Your task to perform on an android device: Clear the shopping cart on walmart.com. Image 0: 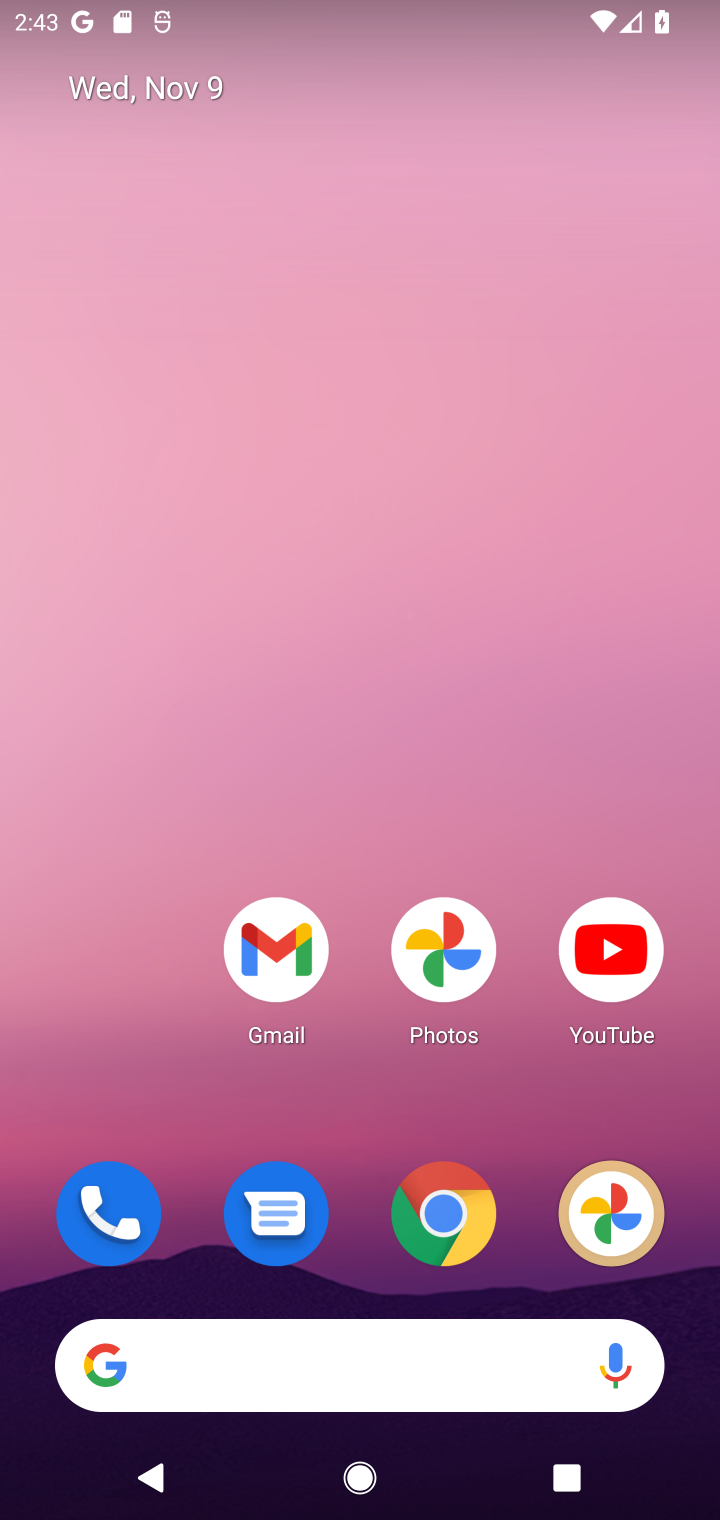
Step 0: click (445, 1214)
Your task to perform on an android device: Clear the shopping cart on walmart.com. Image 1: 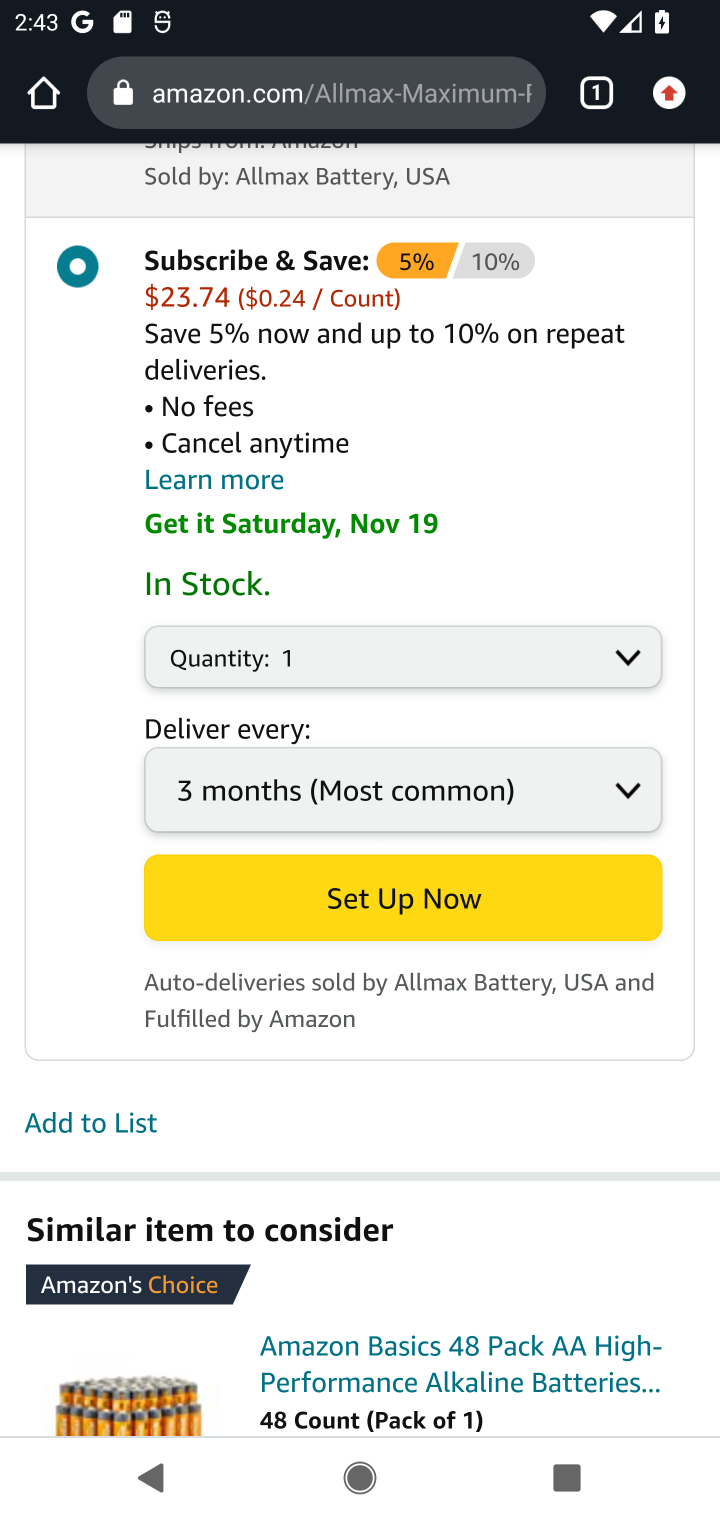
Step 1: press home button
Your task to perform on an android device: Clear the shopping cart on walmart.com. Image 2: 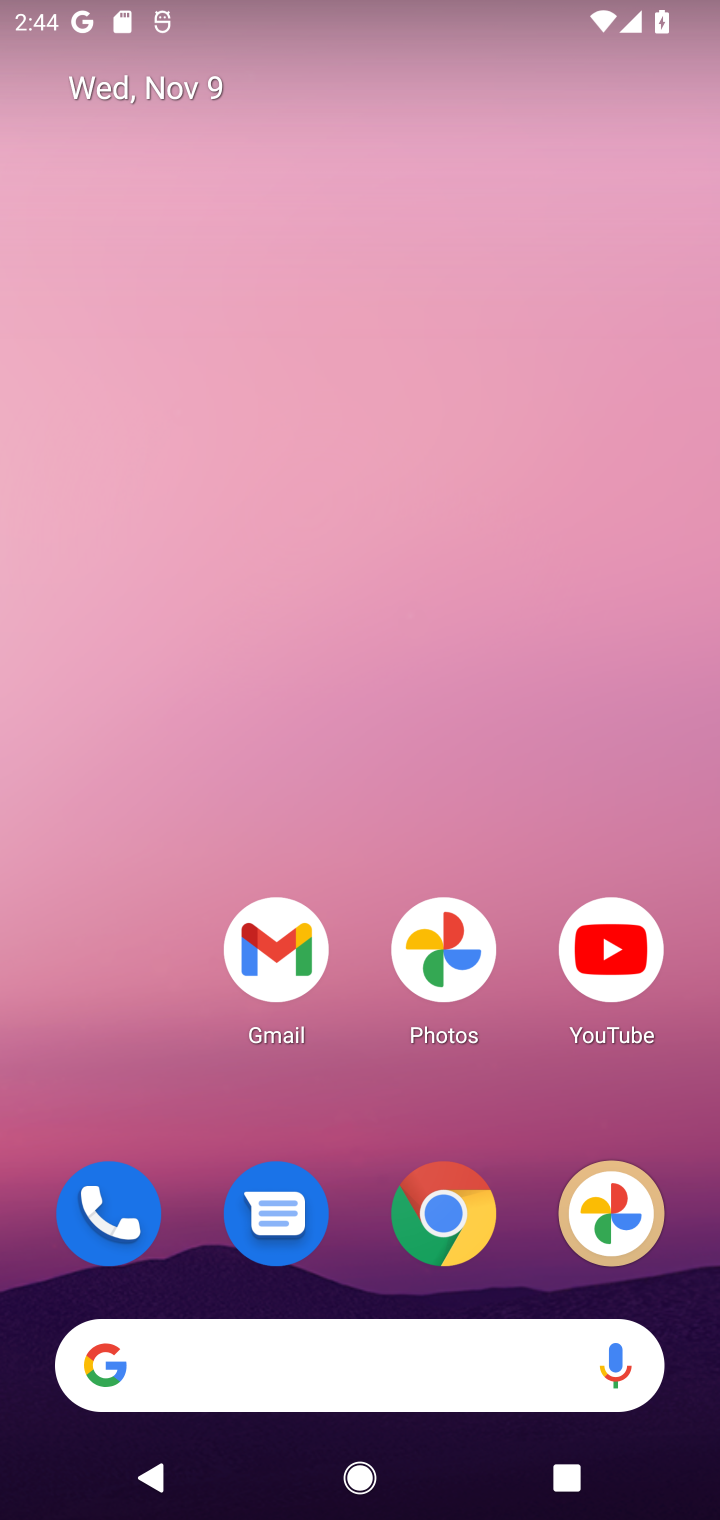
Step 2: click (443, 1212)
Your task to perform on an android device: Clear the shopping cart on walmart.com. Image 3: 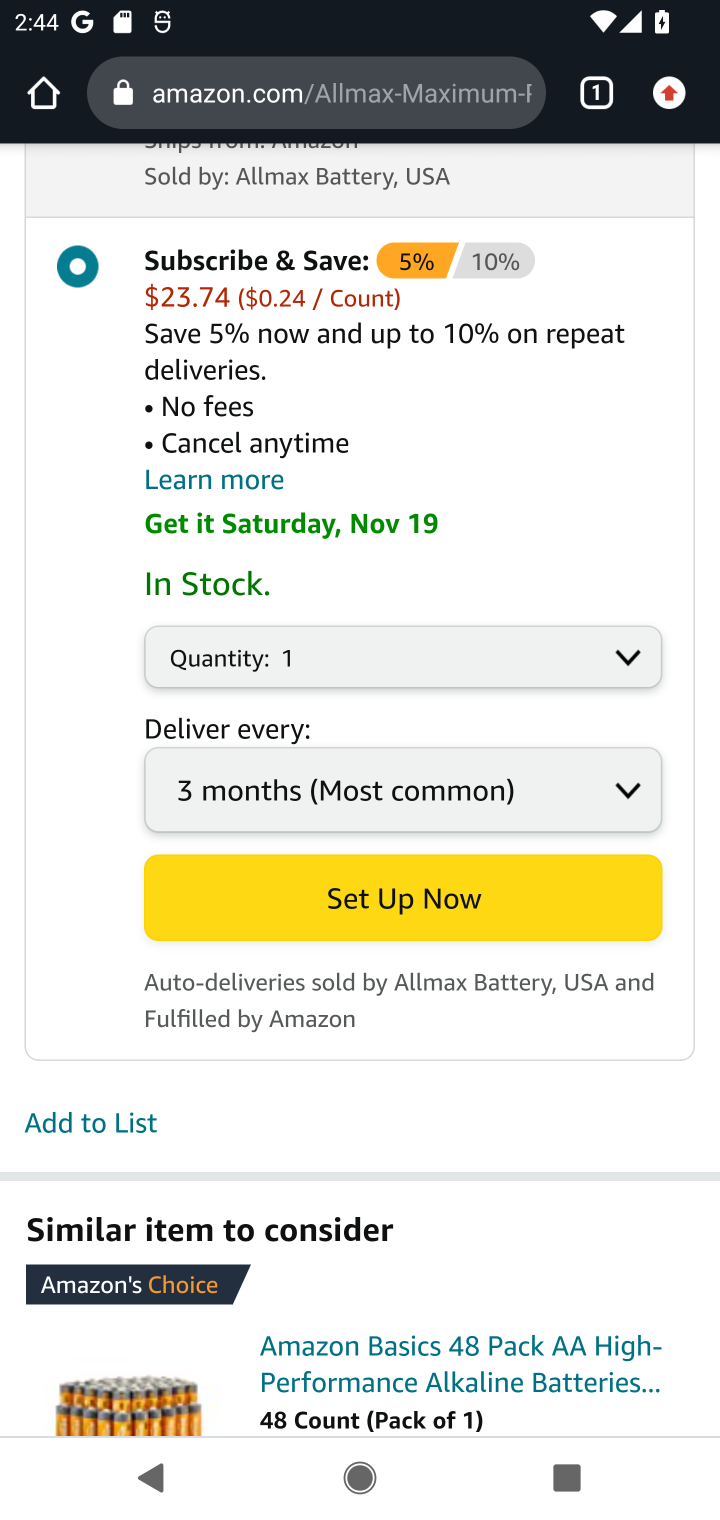
Step 3: click (287, 91)
Your task to perform on an android device: Clear the shopping cart on walmart.com. Image 4: 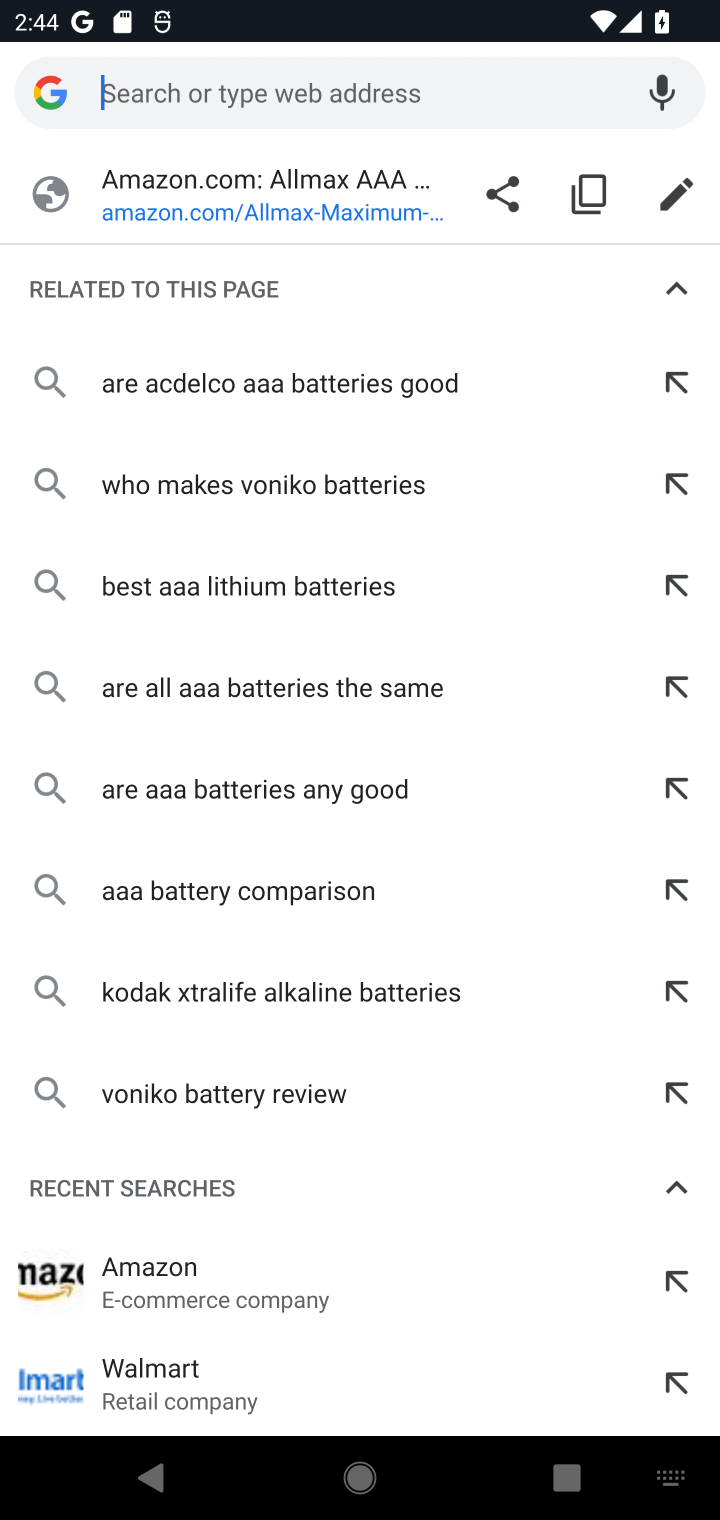
Step 4: type "walmart.com"
Your task to perform on an android device: Clear the shopping cart on walmart.com. Image 5: 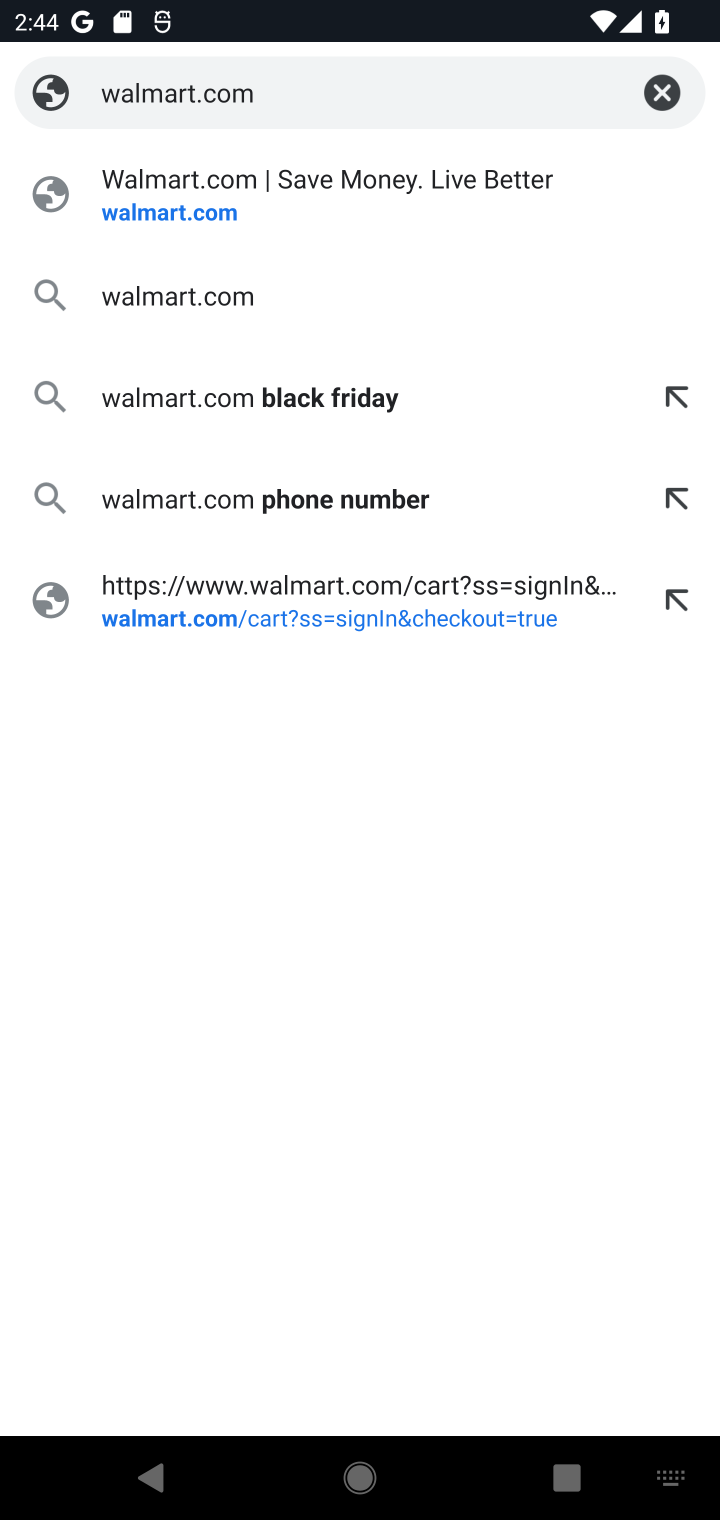
Step 5: click (223, 303)
Your task to perform on an android device: Clear the shopping cart on walmart.com. Image 6: 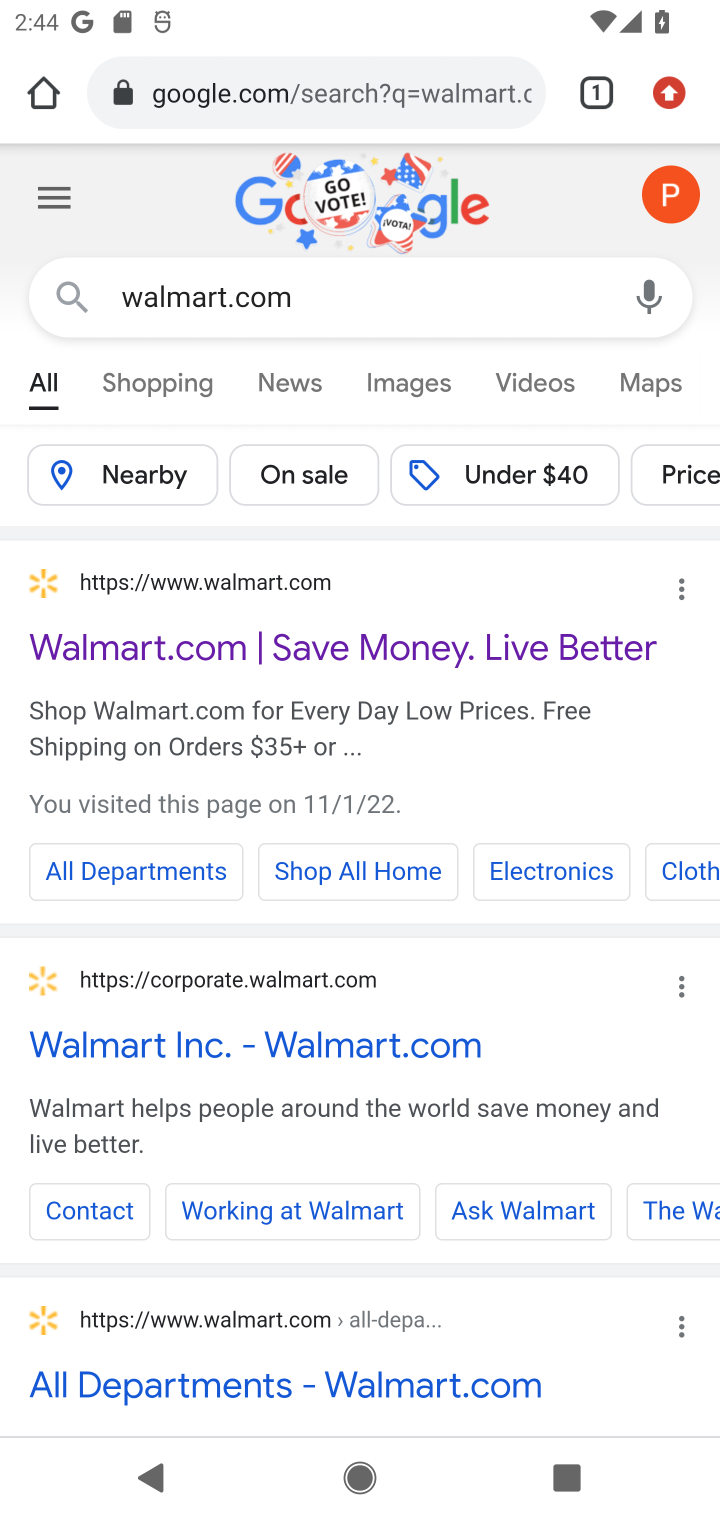
Step 6: click (163, 652)
Your task to perform on an android device: Clear the shopping cart on walmart.com. Image 7: 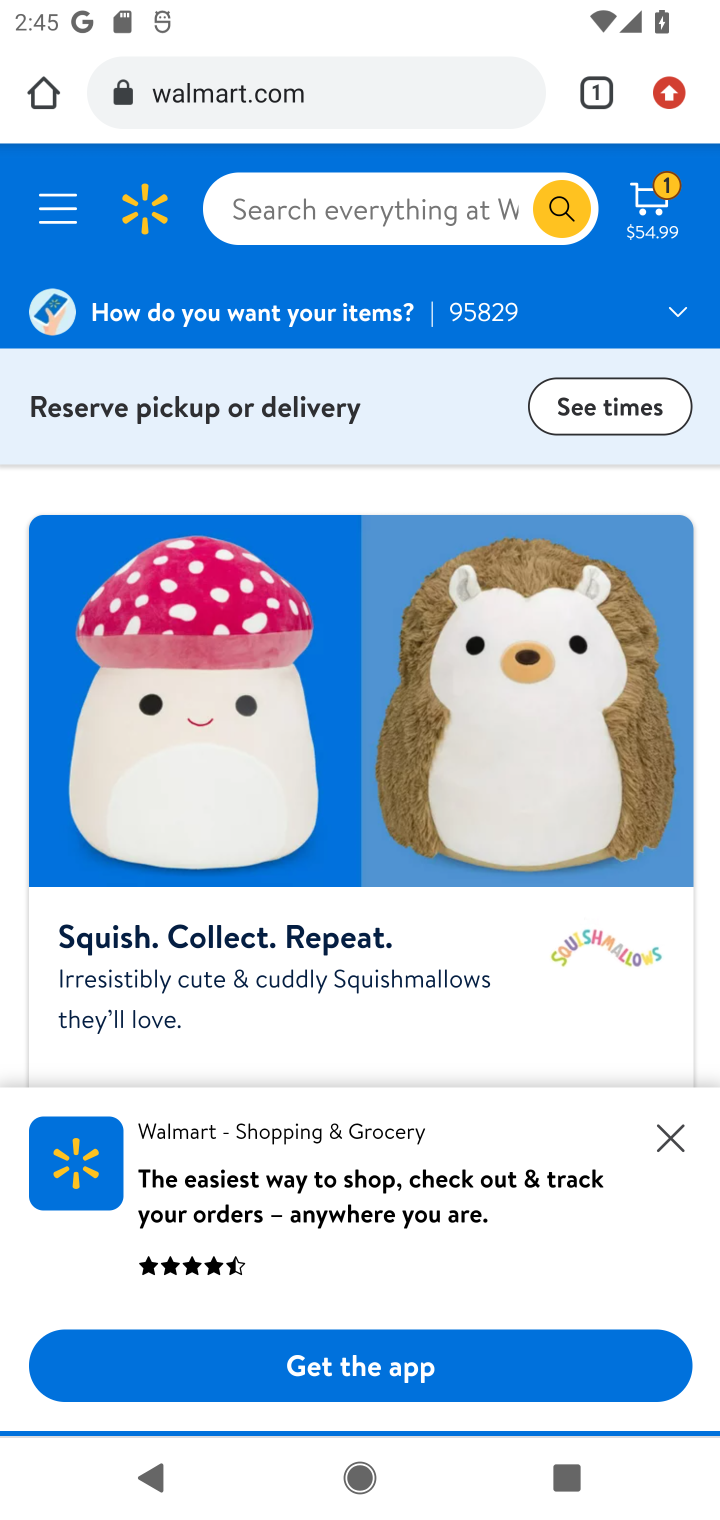
Step 7: click (661, 205)
Your task to perform on an android device: Clear the shopping cart on walmart.com. Image 8: 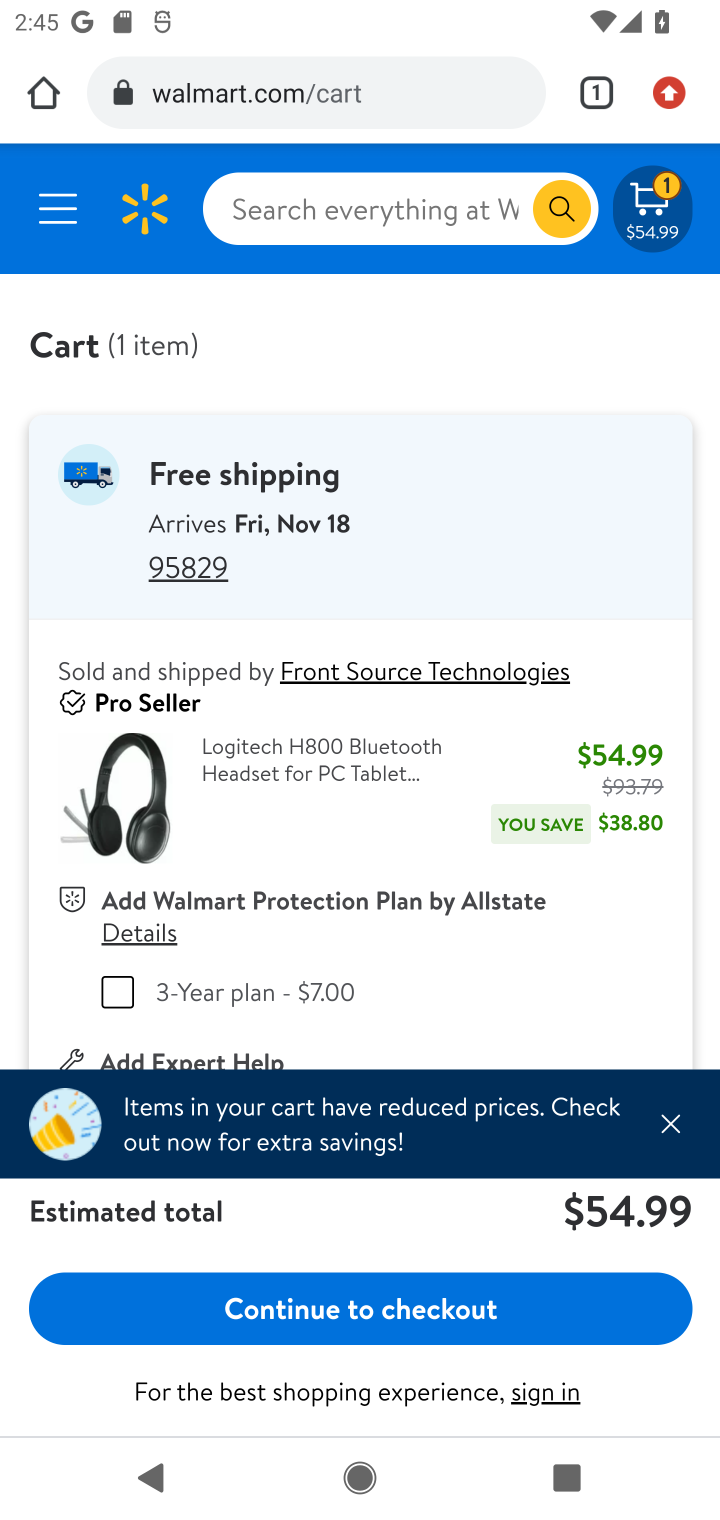
Step 8: drag from (467, 797) to (479, 441)
Your task to perform on an android device: Clear the shopping cart on walmart.com. Image 9: 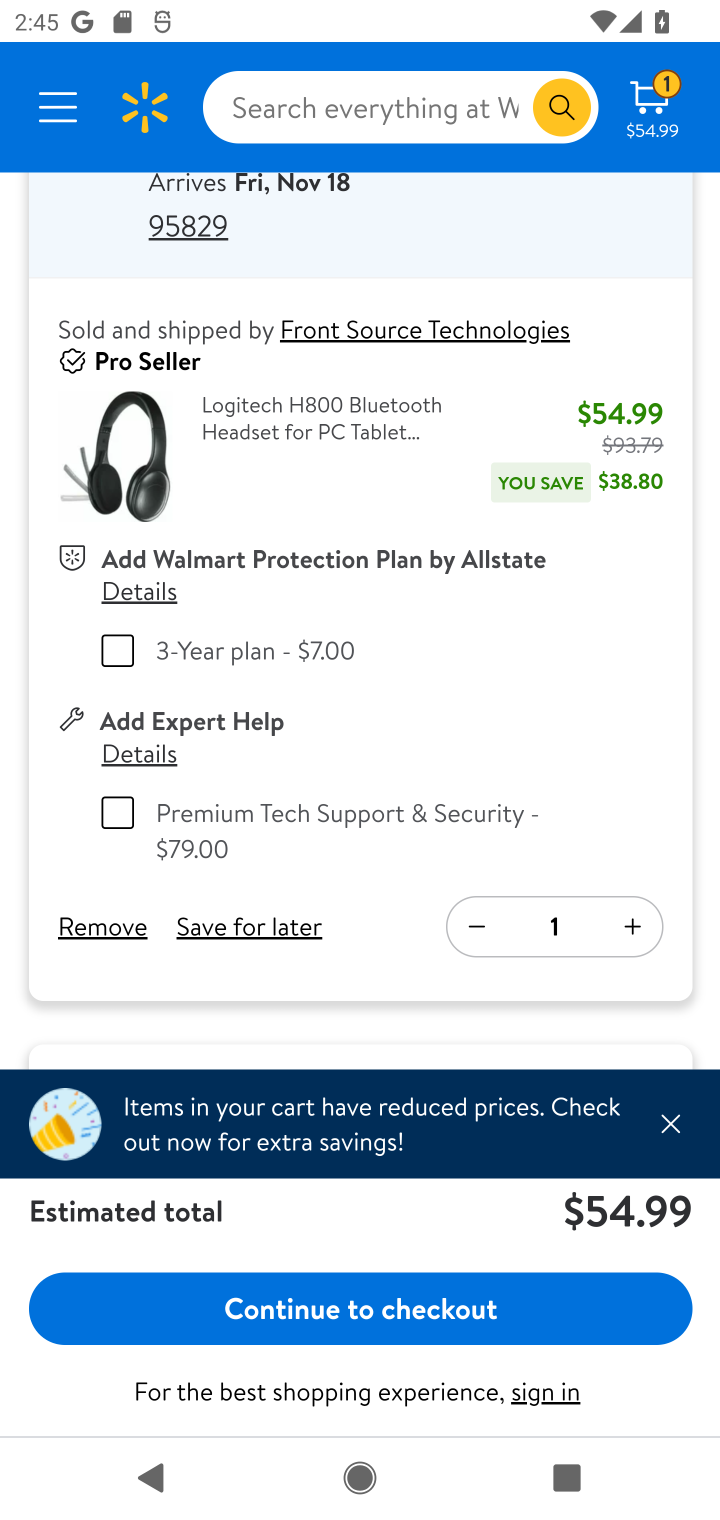
Step 9: click (673, 1000)
Your task to perform on an android device: Clear the shopping cart on walmart.com. Image 10: 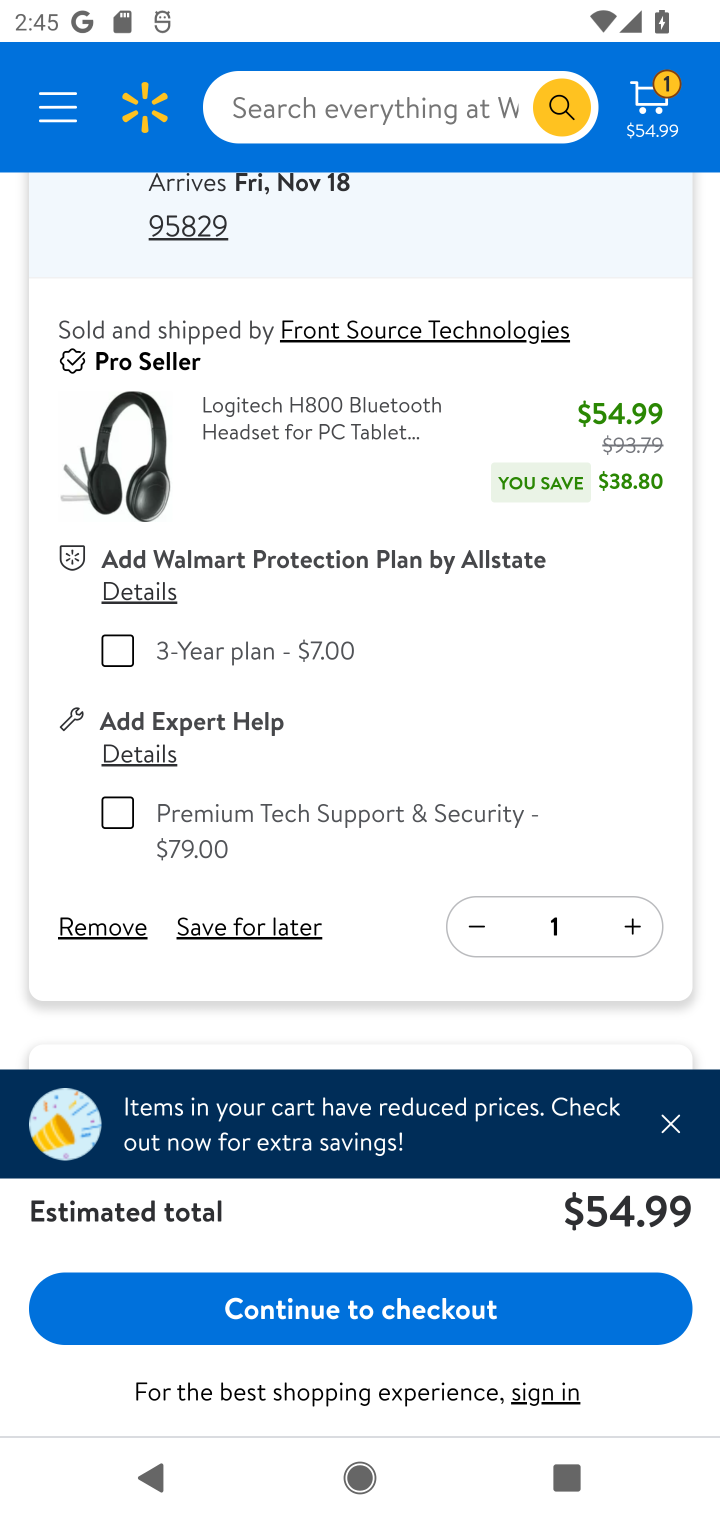
Step 10: click (139, 924)
Your task to perform on an android device: Clear the shopping cart on walmart.com. Image 11: 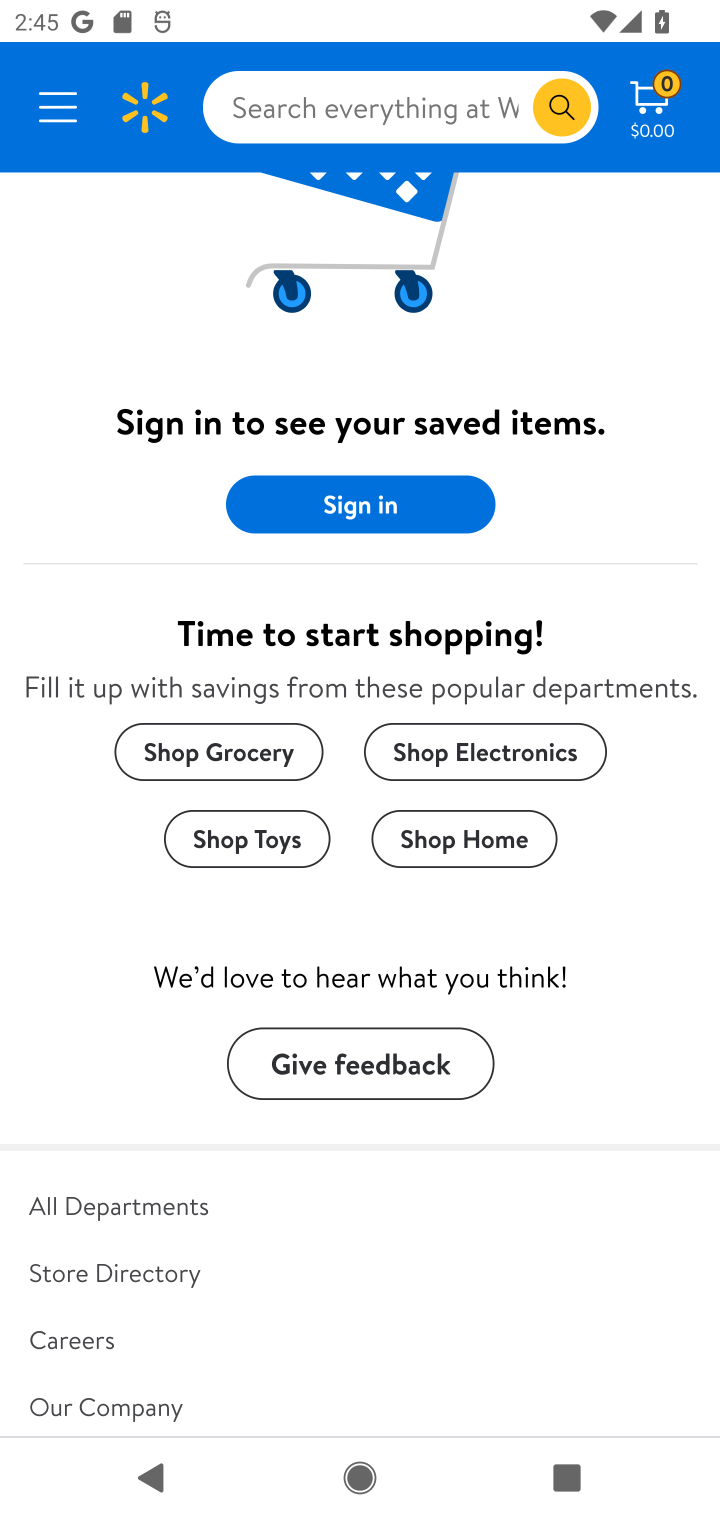
Step 11: task complete